Your task to perform on an android device: turn on javascript in the chrome app Image 0: 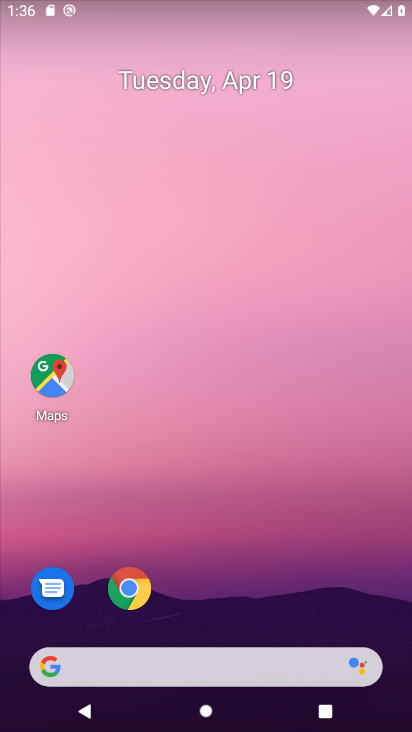
Step 0: click (125, 586)
Your task to perform on an android device: turn on javascript in the chrome app Image 1: 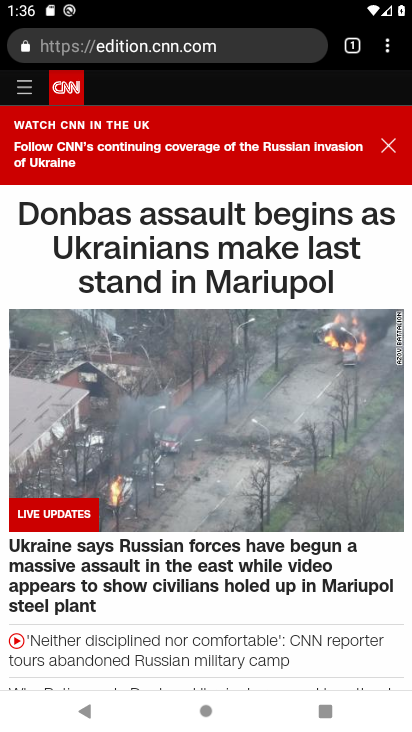
Step 1: click (391, 42)
Your task to perform on an android device: turn on javascript in the chrome app Image 2: 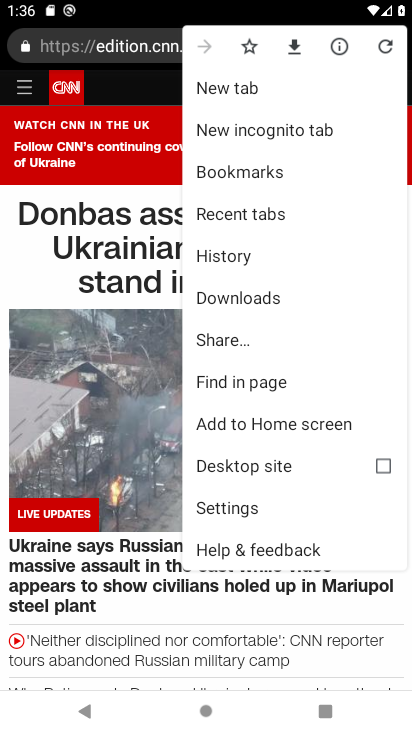
Step 2: click (247, 506)
Your task to perform on an android device: turn on javascript in the chrome app Image 3: 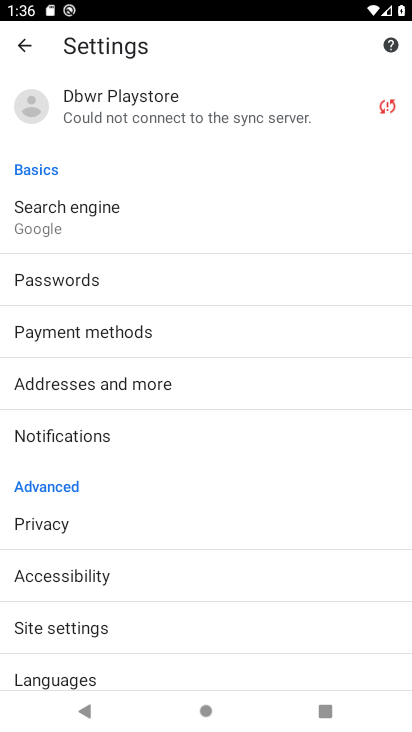
Step 3: click (88, 624)
Your task to perform on an android device: turn on javascript in the chrome app Image 4: 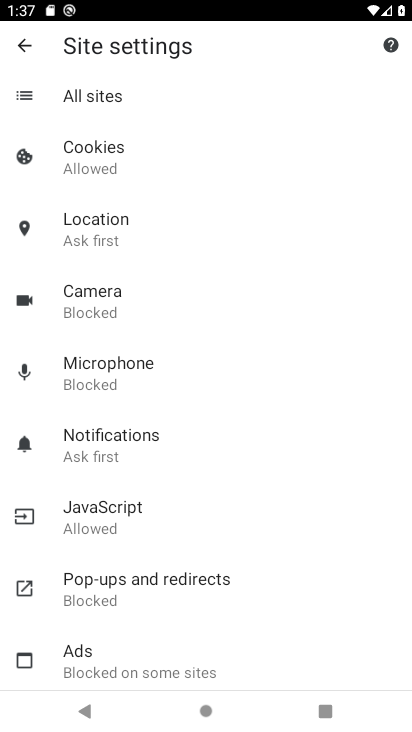
Step 4: click (164, 515)
Your task to perform on an android device: turn on javascript in the chrome app Image 5: 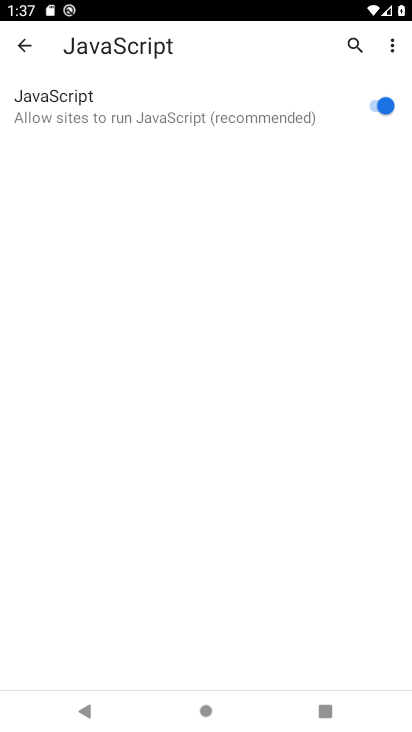
Step 5: task complete